Your task to perform on an android device: open app "Contacts" (install if not already installed) Image 0: 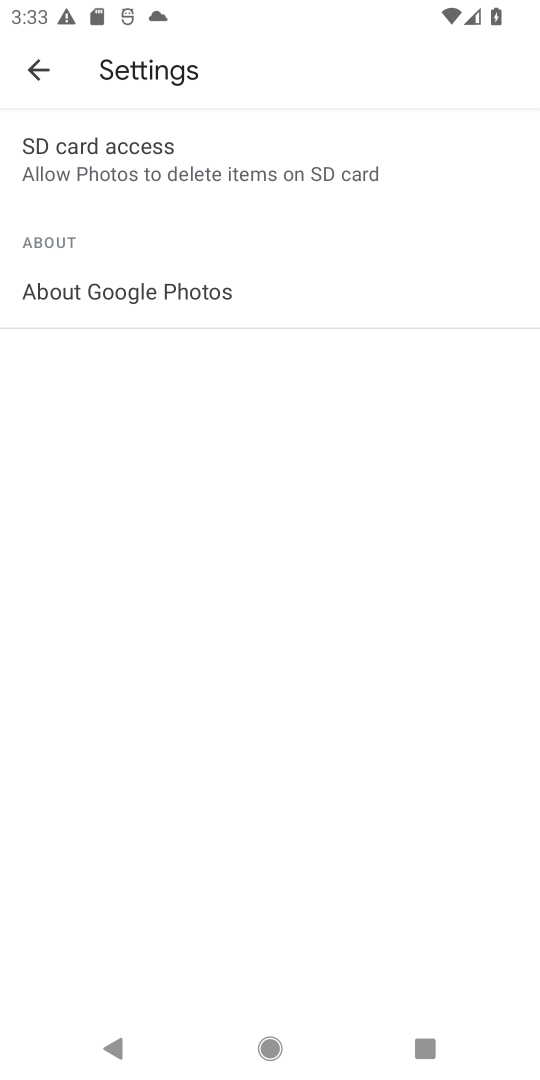
Step 0: press home button
Your task to perform on an android device: open app "Contacts" (install if not already installed) Image 1: 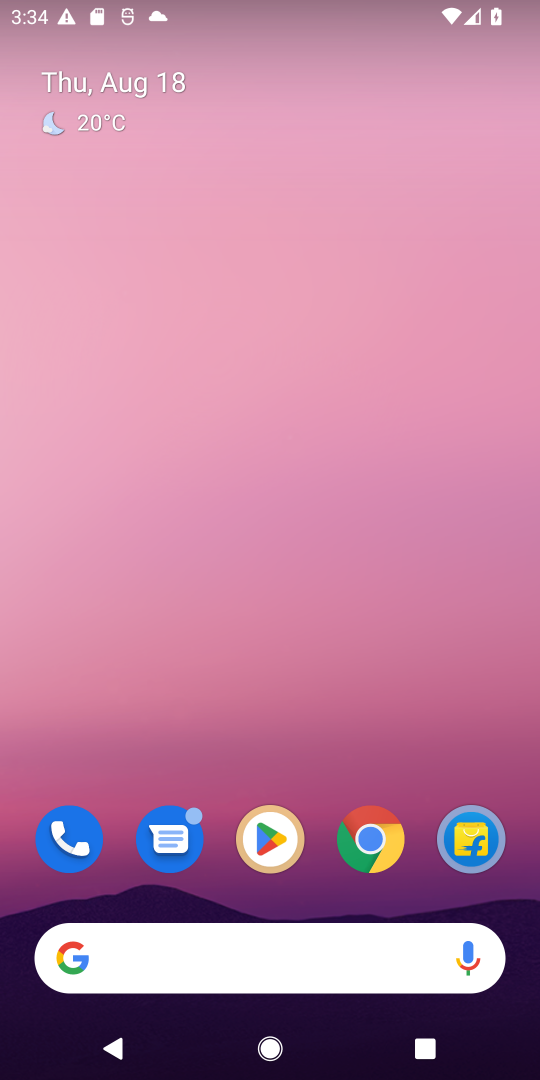
Step 1: drag from (240, 894) to (218, 19)
Your task to perform on an android device: open app "Contacts" (install if not already installed) Image 2: 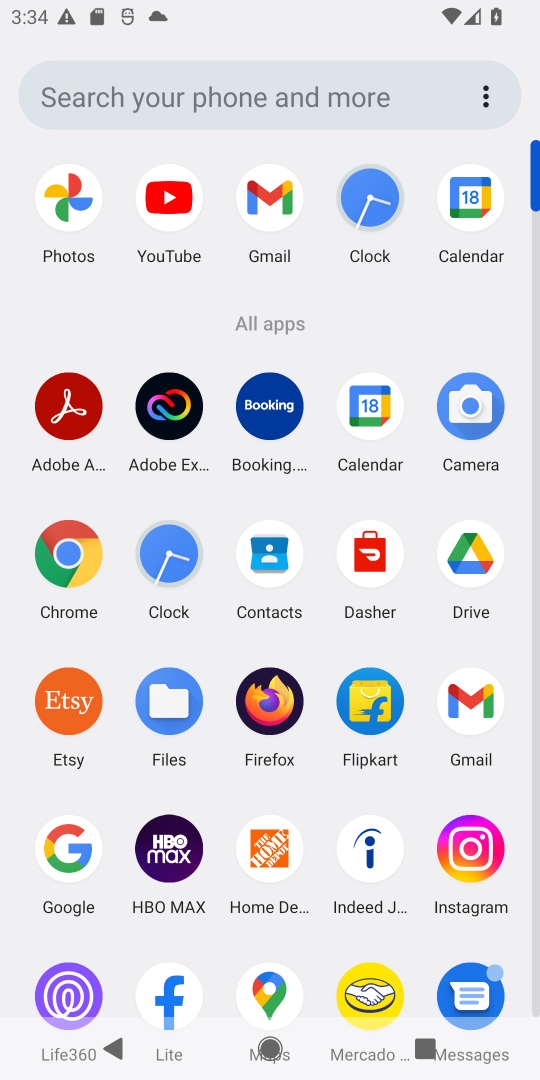
Step 2: click (258, 559)
Your task to perform on an android device: open app "Contacts" (install if not already installed) Image 3: 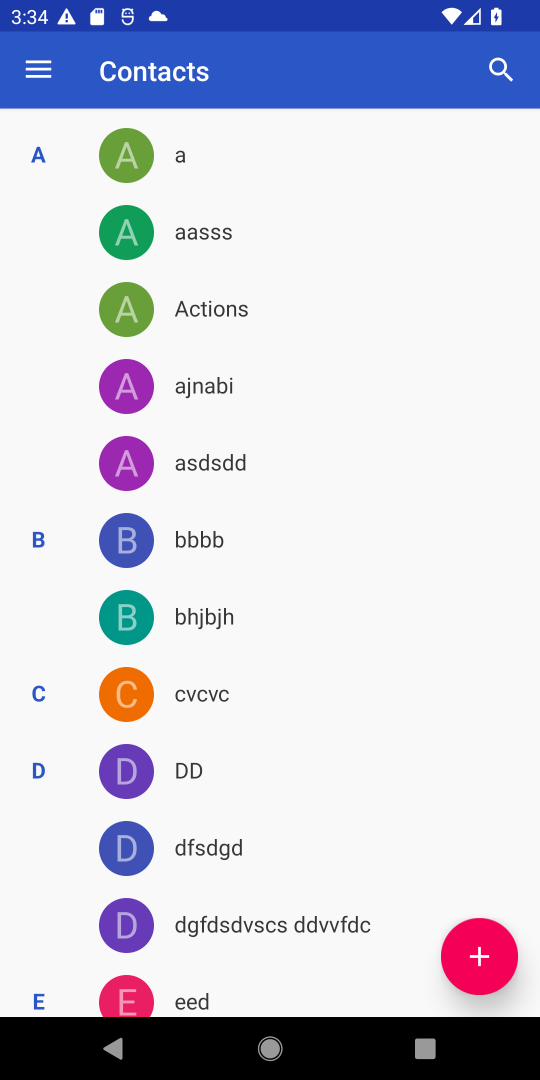
Step 3: task complete